Your task to perform on an android device: Open sound settings Image 0: 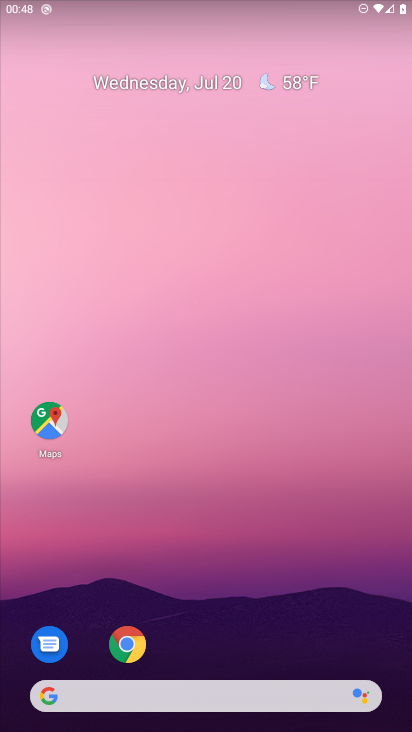
Step 0: drag from (280, 162) to (369, 10)
Your task to perform on an android device: Open sound settings Image 1: 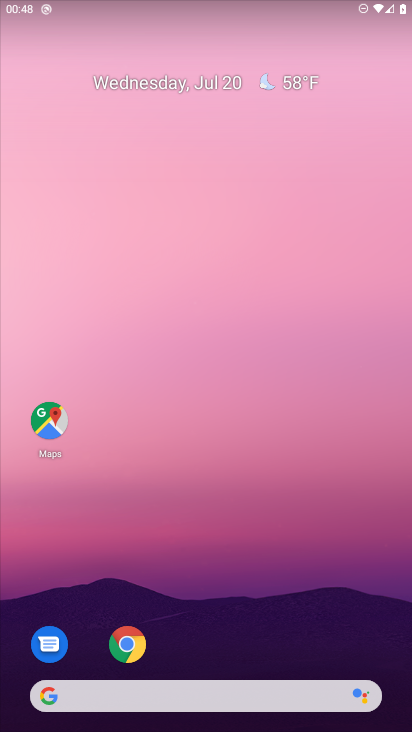
Step 1: drag from (89, 557) to (232, 193)
Your task to perform on an android device: Open sound settings Image 2: 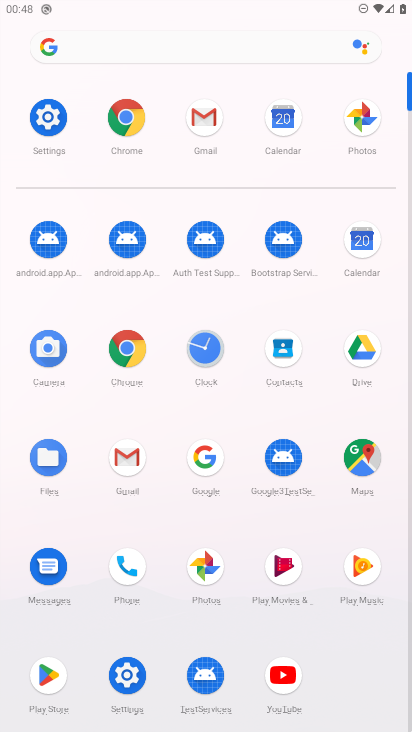
Step 2: click (119, 681)
Your task to perform on an android device: Open sound settings Image 3: 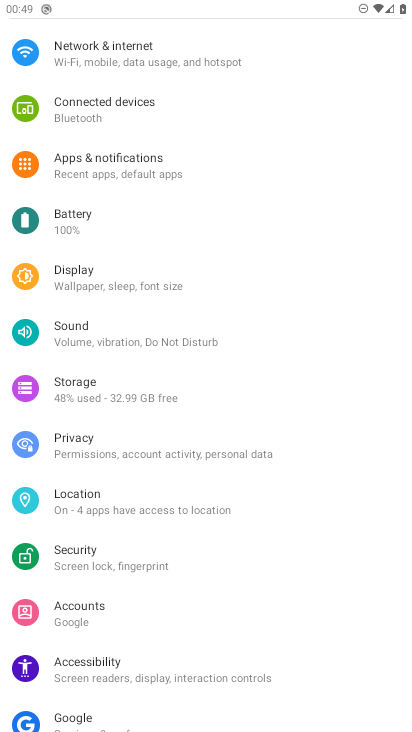
Step 3: click (82, 343)
Your task to perform on an android device: Open sound settings Image 4: 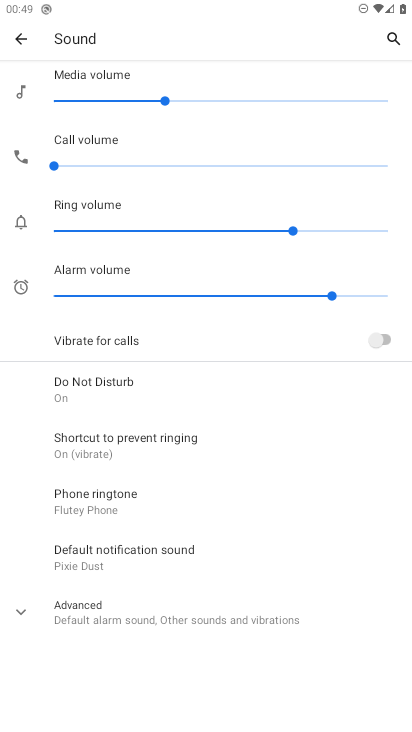
Step 4: task complete